Your task to perform on an android device: turn on airplane mode Image 0: 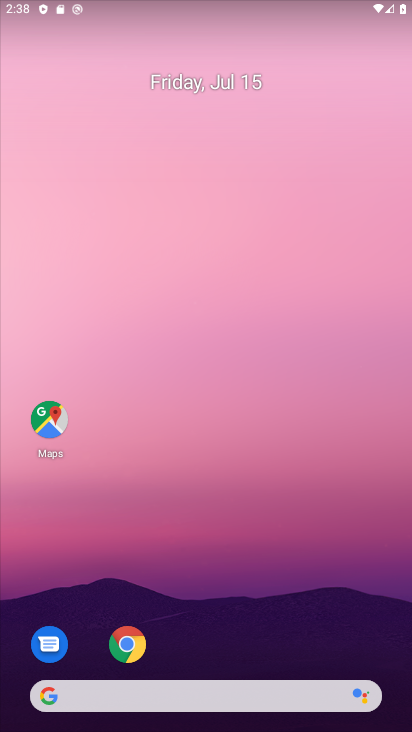
Step 0: drag from (296, 7) to (318, 634)
Your task to perform on an android device: turn on airplane mode Image 1: 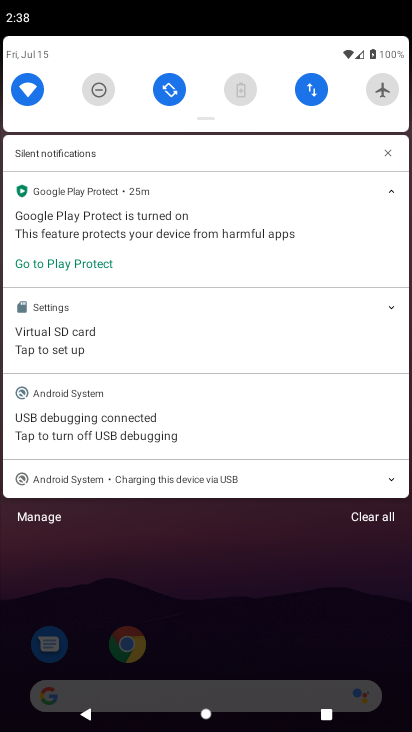
Step 1: drag from (217, 126) to (282, 657)
Your task to perform on an android device: turn on airplane mode Image 2: 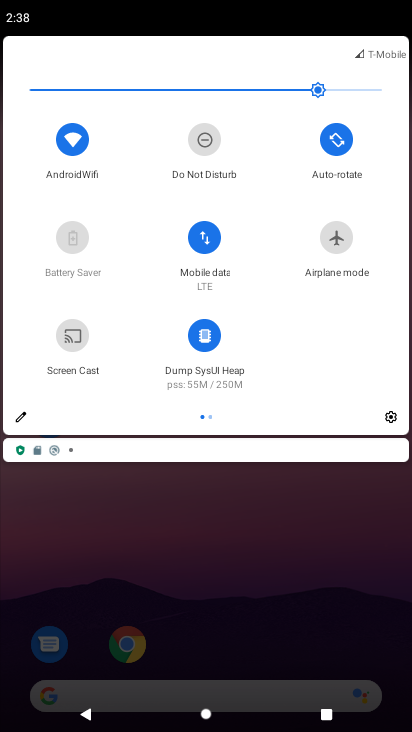
Step 2: click (341, 237)
Your task to perform on an android device: turn on airplane mode Image 3: 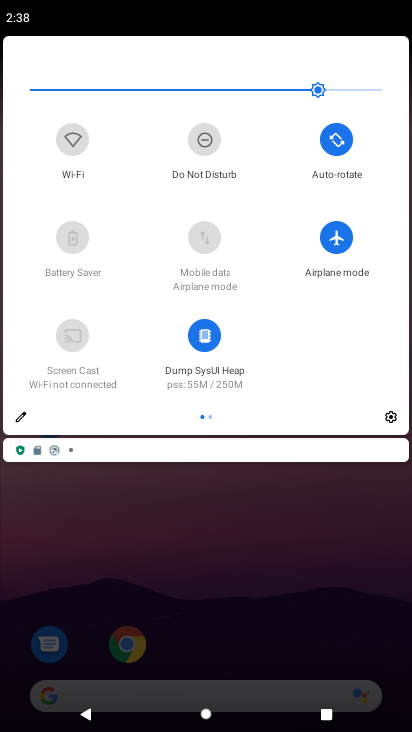
Step 3: task complete